Your task to perform on an android device: open app "McDonald's" Image 0: 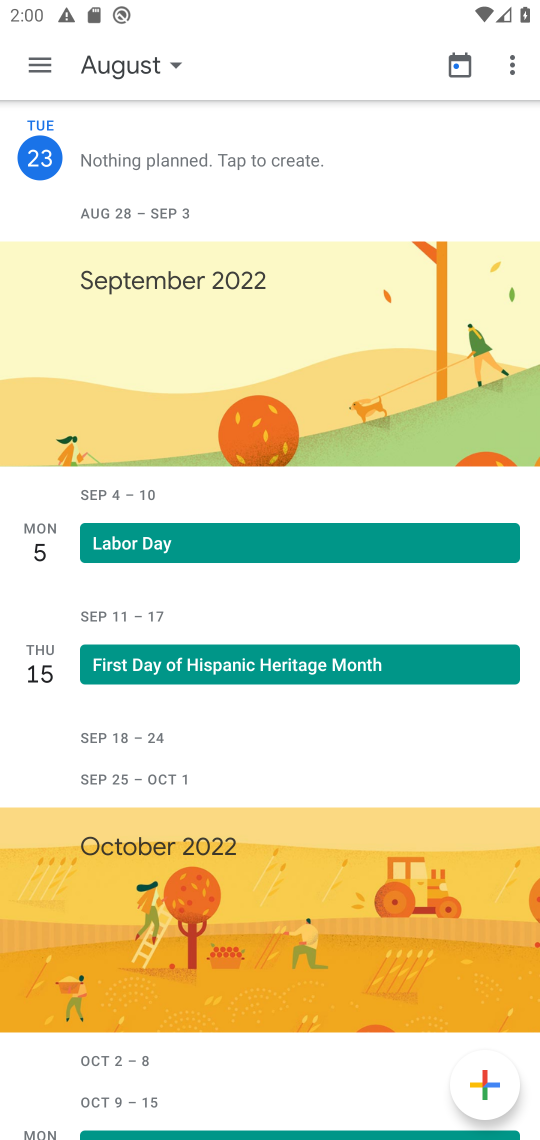
Step 0: press home button
Your task to perform on an android device: open app "McDonald's" Image 1: 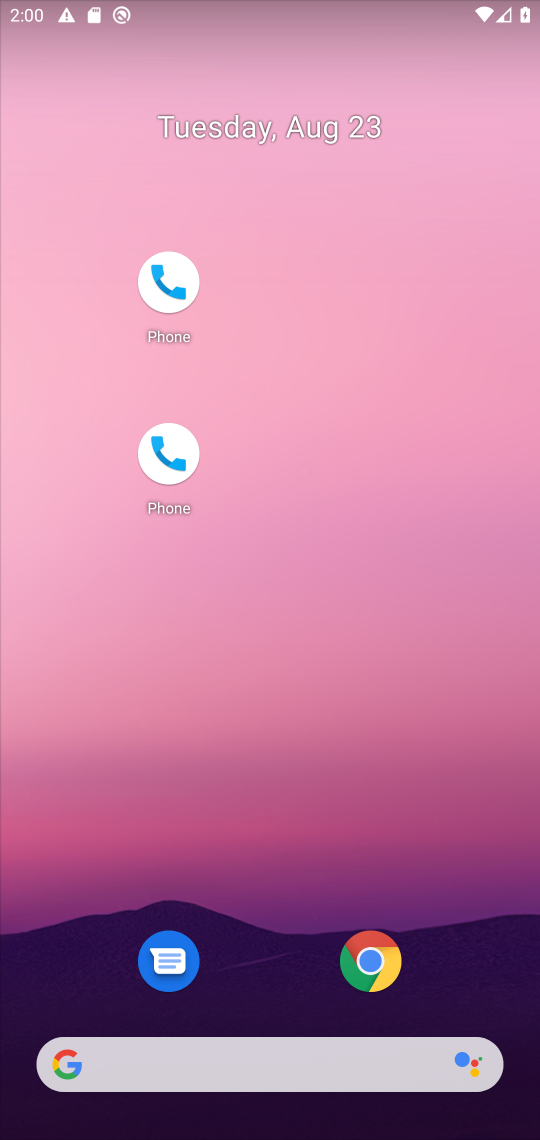
Step 1: task complete